Your task to perform on an android device: Open the Play Movies app and select the watchlist tab. Image 0: 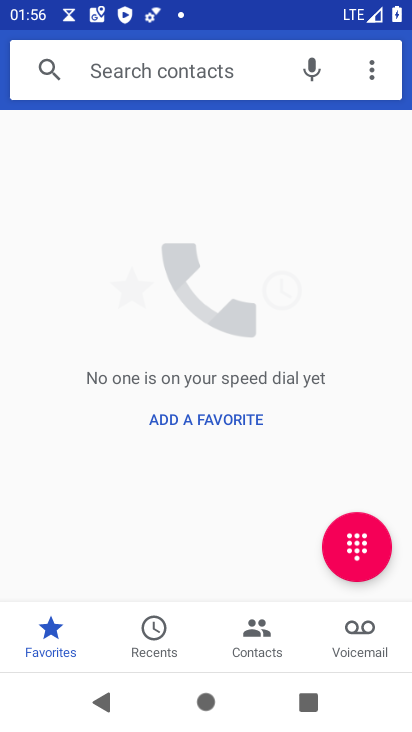
Step 0: press home button
Your task to perform on an android device: Open the Play Movies app and select the watchlist tab. Image 1: 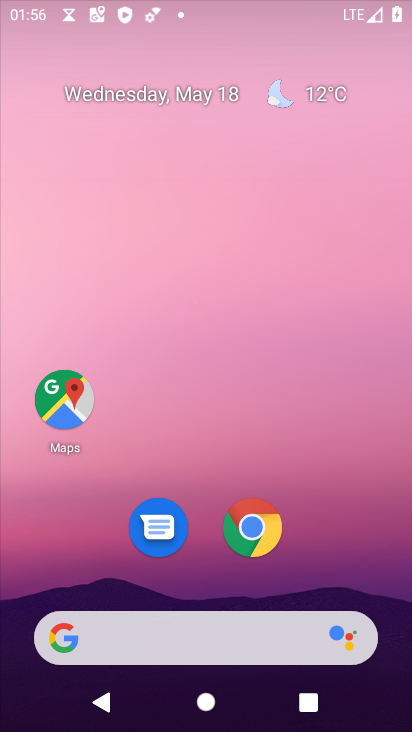
Step 1: drag from (371, 574) to (211, 34)
Your task to perform on an android device: Open the Play Movies app and select the watchlist tab. Image 2: 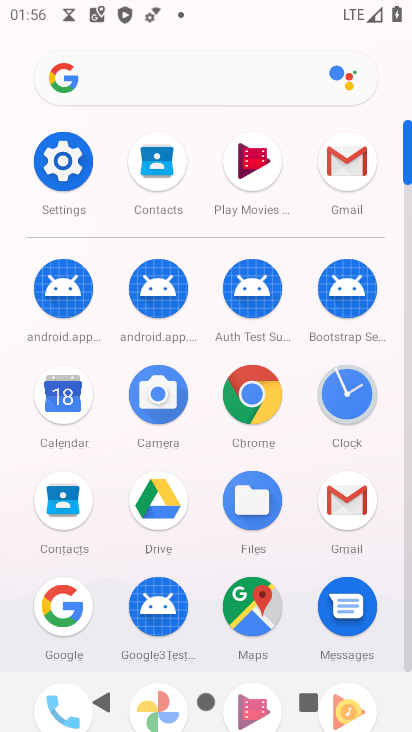
Step 2: drag from (321, 592) to (263, 218)
Your task to perform on an android device: Open the Play Movies app and select the watchlist tab. Image 3: 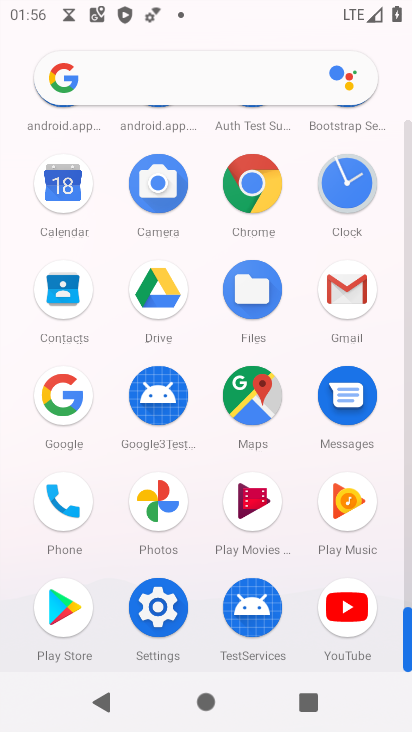
Step 3: click (250, 502)
Your task to perform on an android device: Open the Play Movies app and select the watchlist tab. Image 4: 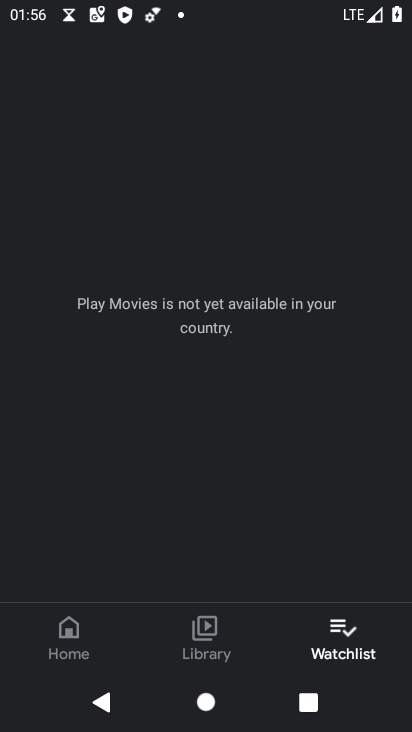
Step 4: task complete